Your task to perform on an android device: change notification settings in the gmail app Image 0: 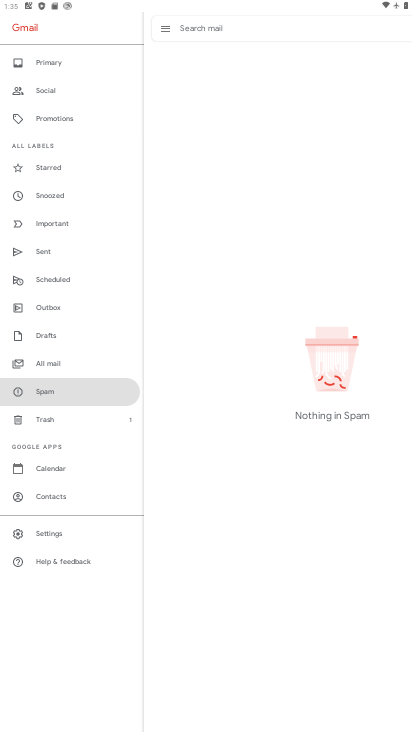
Step 0: click (56, 526)
Your task to perform on an android device: change notification settings in the gmail app Image 1: 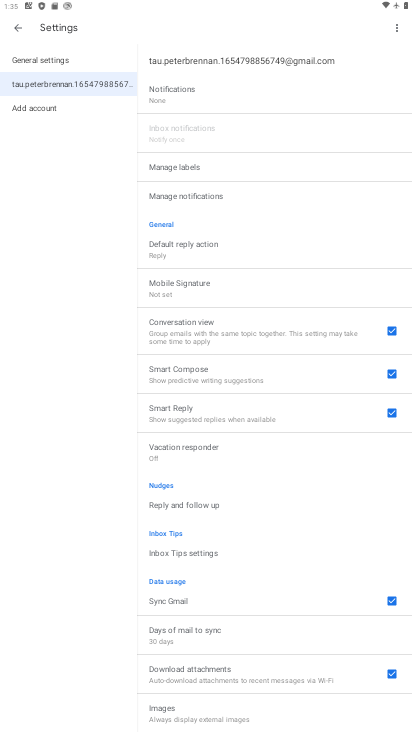
Step 1: click (210, 99)
Your task to perform on an android device: change notification settings in the gmail app Image 2: 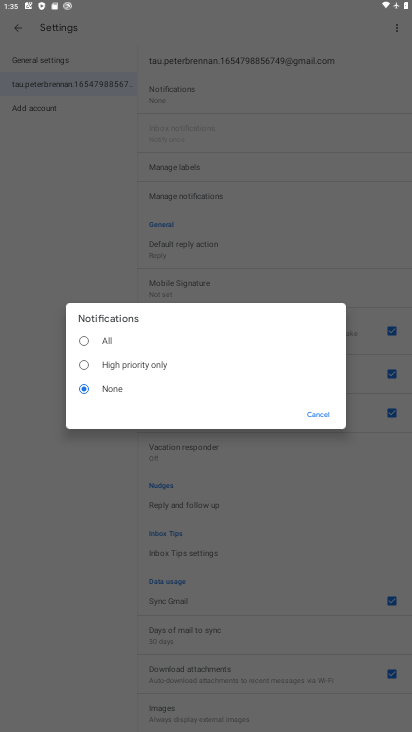
Step 2: click (108, 346)
Your task to perform on an android device: change notification settings in the gmail app Image 3: 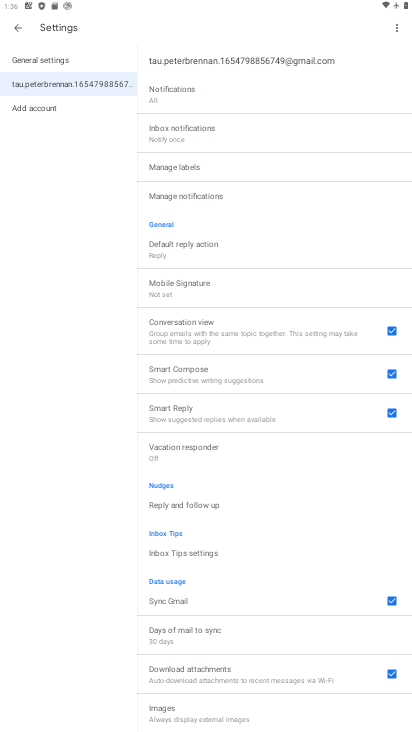
Step 3: task complete